Your task to perform on an android device: See recent photos Image 0: 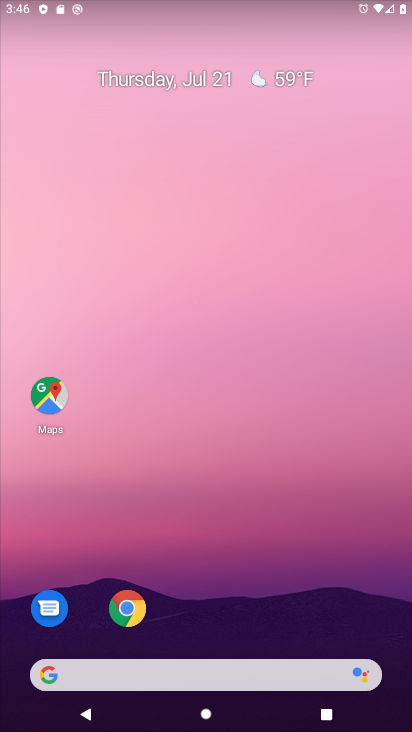
Step 0: drag from (224, 618) to (229, 9)
Your task to perform on an android device: See recent photos Image 1: 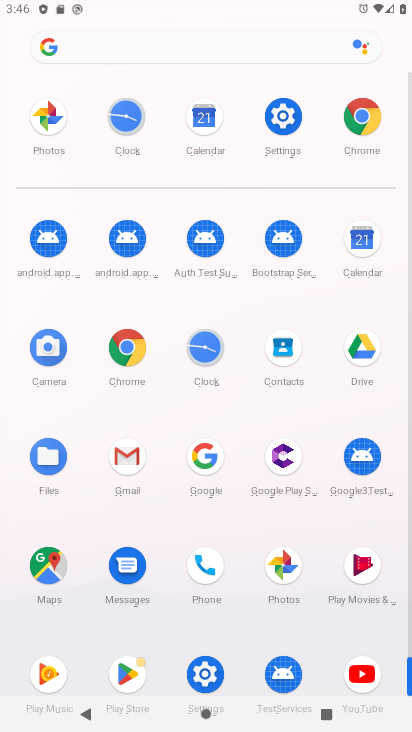
Step 1: click (282, 568)
Your task to perform on an android device: See recent photos Image 2: 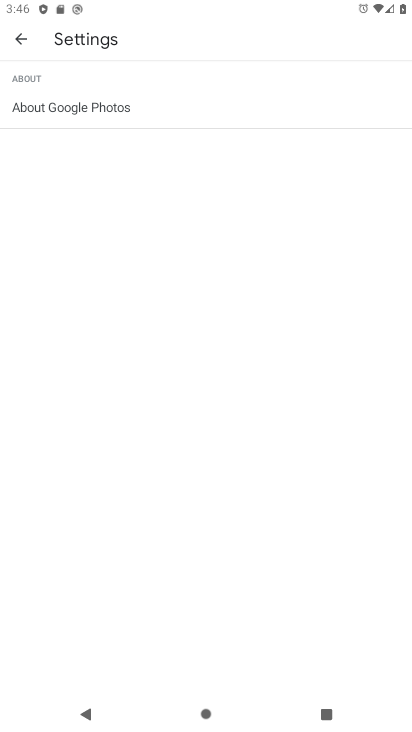
Step 2: task complete